Your task to perform on an android device: add a contact Image 0: 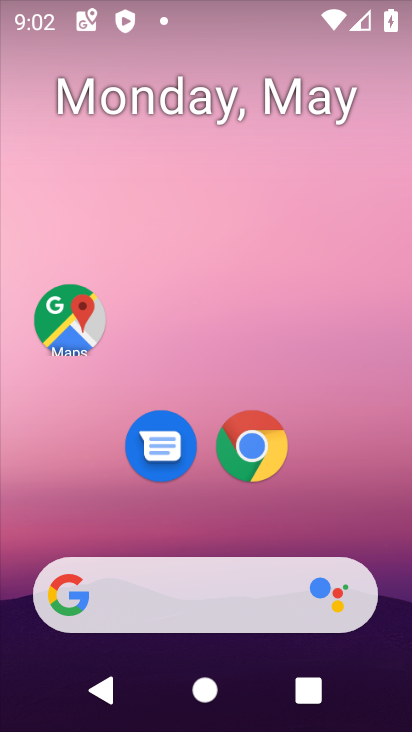
Step 0: press home button
Your task to perform on an android device: add a contact Image 1: 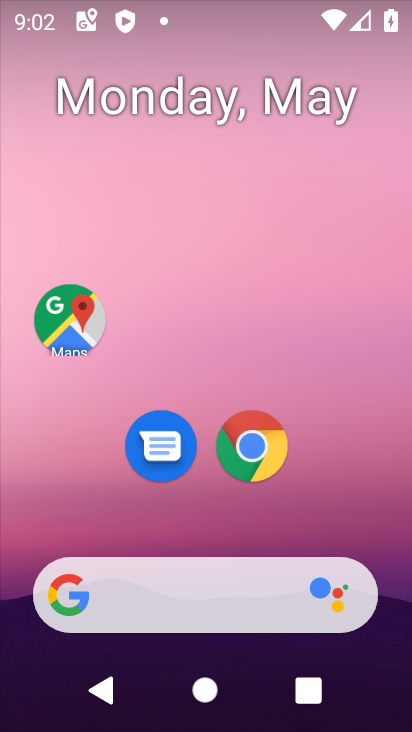
Step 1: drag from (218, 530) to (218, 5)
Your task to perform on an android device: add a contact Image 2: 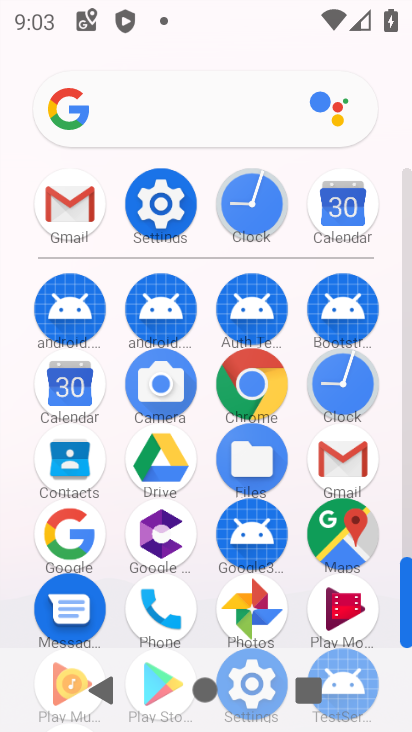
Step 2: drag from (204, 570) to (221, 145)
Your task to perform on an android device: add a contact Image 3: 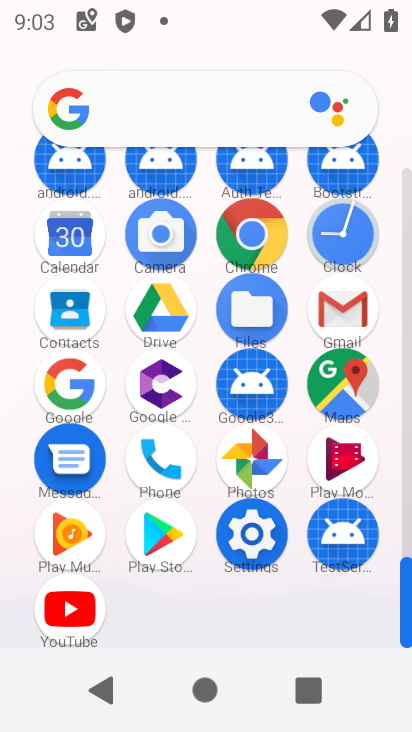
Step 3: click (71, 303)
Your task to perform on an android device: add a contact Image 4: 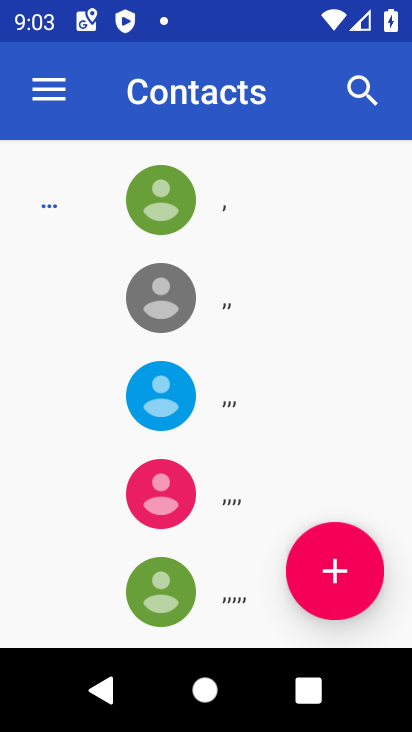
Step 4: click (326, 571)
Your task to perform on an android device: add a contact Image 5: 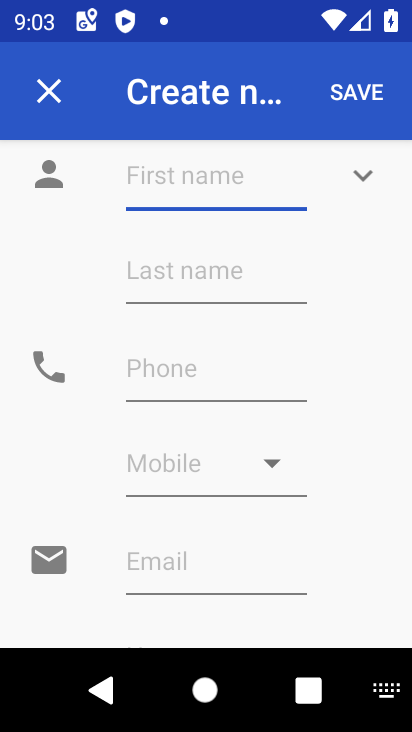
Step 5: type "gffch"
Your task to perform on an android device: add a contact Image 6: 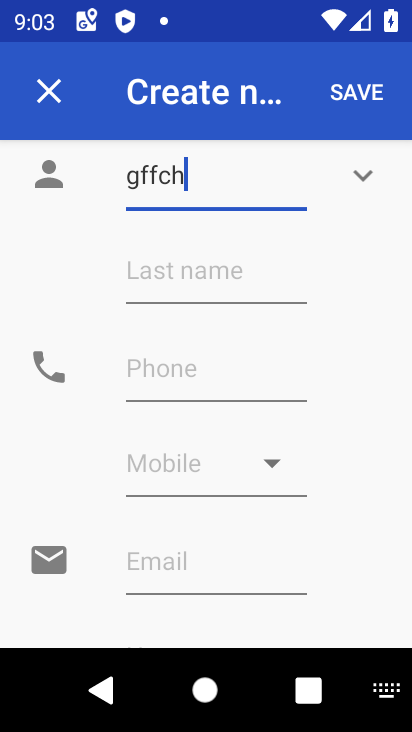
Step 6: type ""
Your task to perform on an android device: add a contact Image 7: 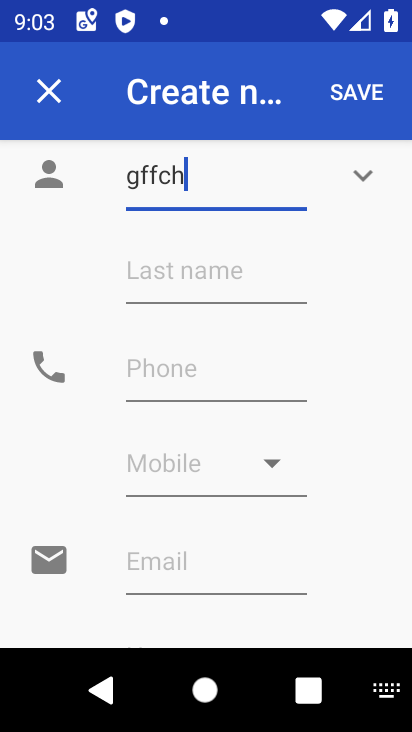
Step 7: click (355, 92)
Your task to perform on an android device: add a contact Image 8: 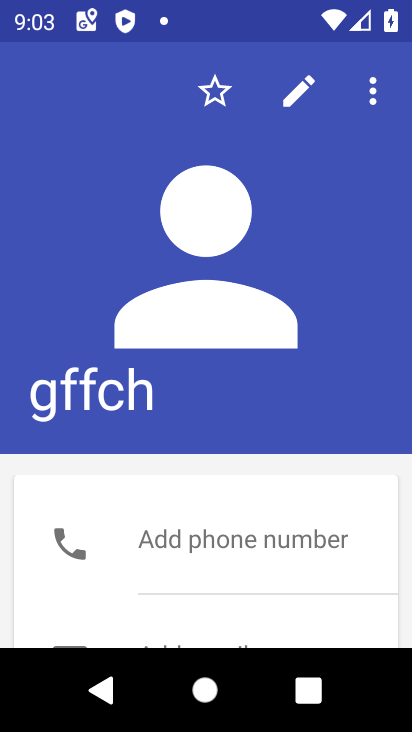
Step 8: task complete